Your task to perform on an android device: What's on the menu at Five Guys? Image 0: 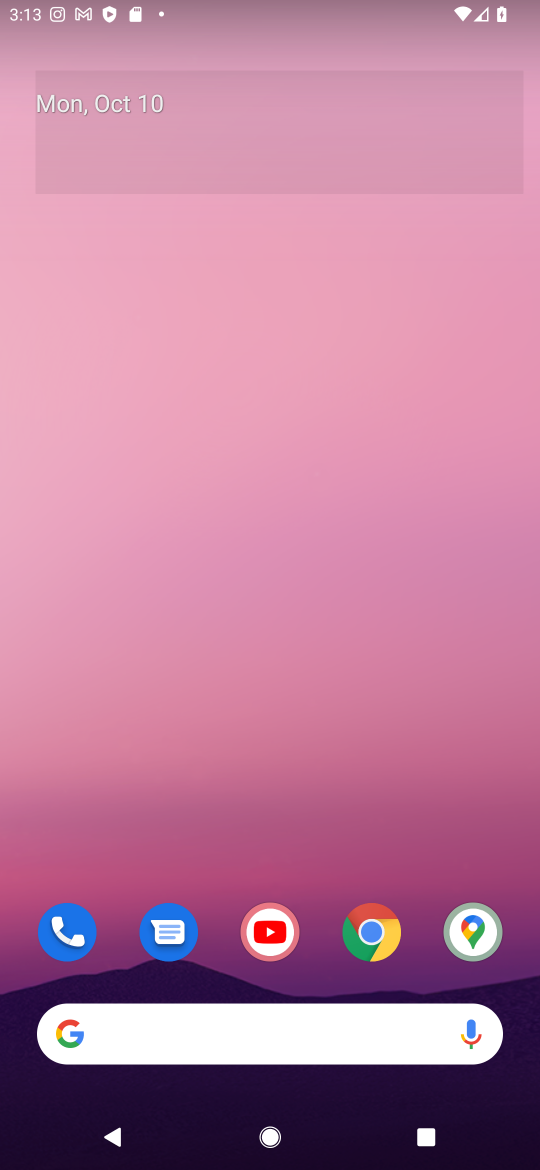
Step 0: click (356, 1042)
Your task to perform on an android device: What's on the menu at Five Guys? Image 1: 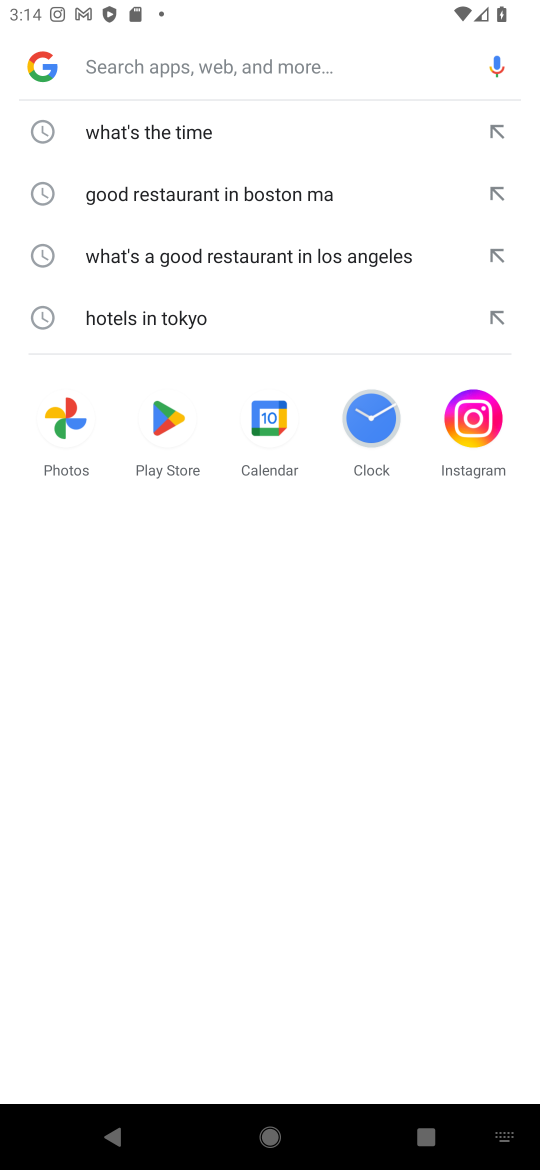
Step 1: type "What's on the menu at Five Guys"
Your task to perform on an android device: What's on the menu at Five Guys? Image 2: 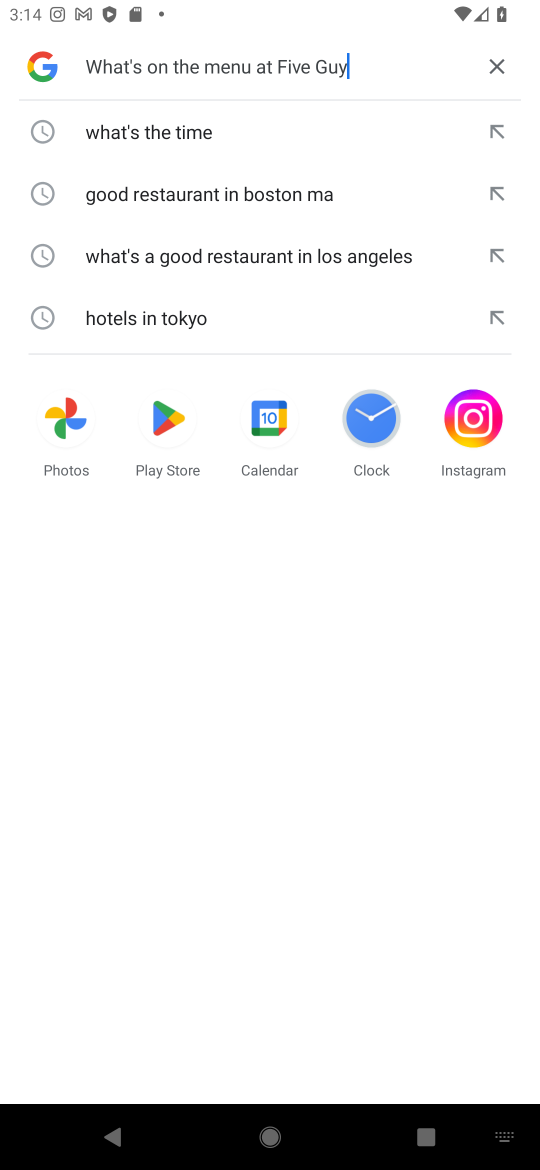
Step 2: press enter
Your task to perform on an android device: What's on the menu at Five Guys? Image 3: 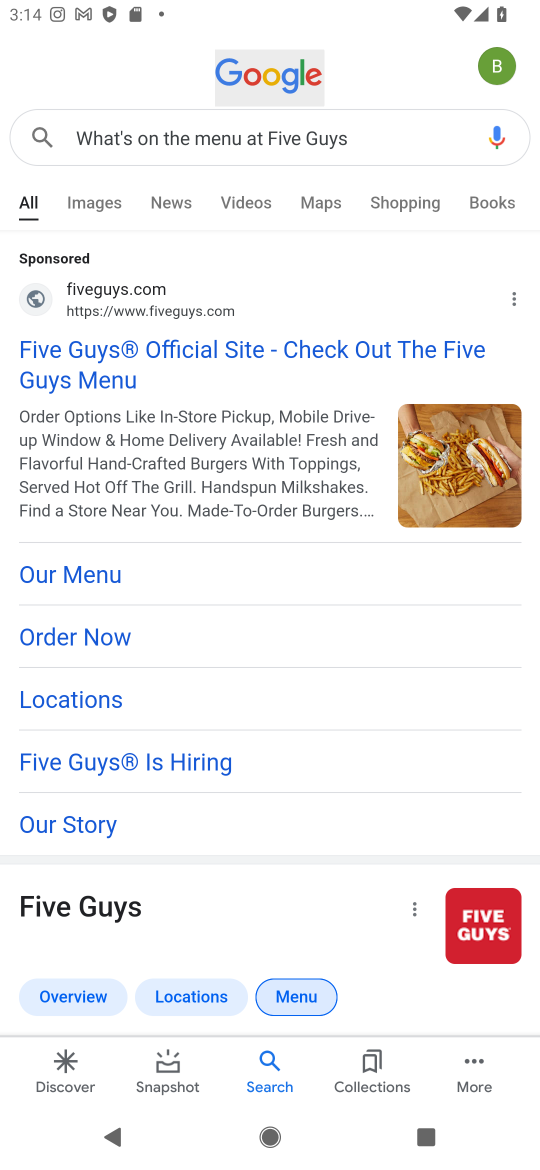
Step 3: click (330, 344)
Your task to perform on an android device: What's on the menu at Five Guys? Image 4: 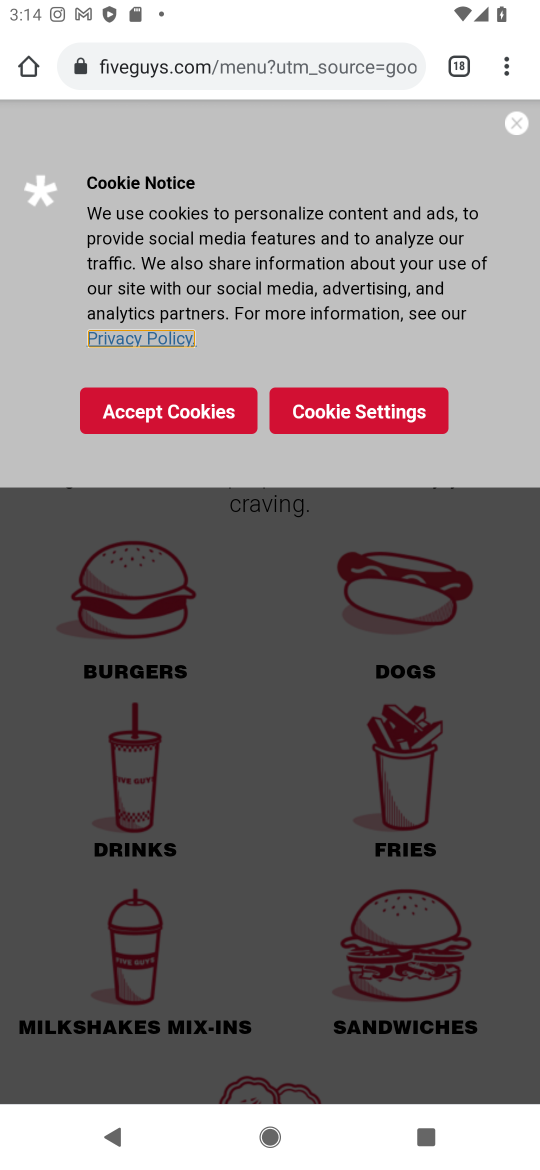
Step 4: click (178, 414)
Your task to perform on an android device: What's on the menu at Five Guys? Image 5: 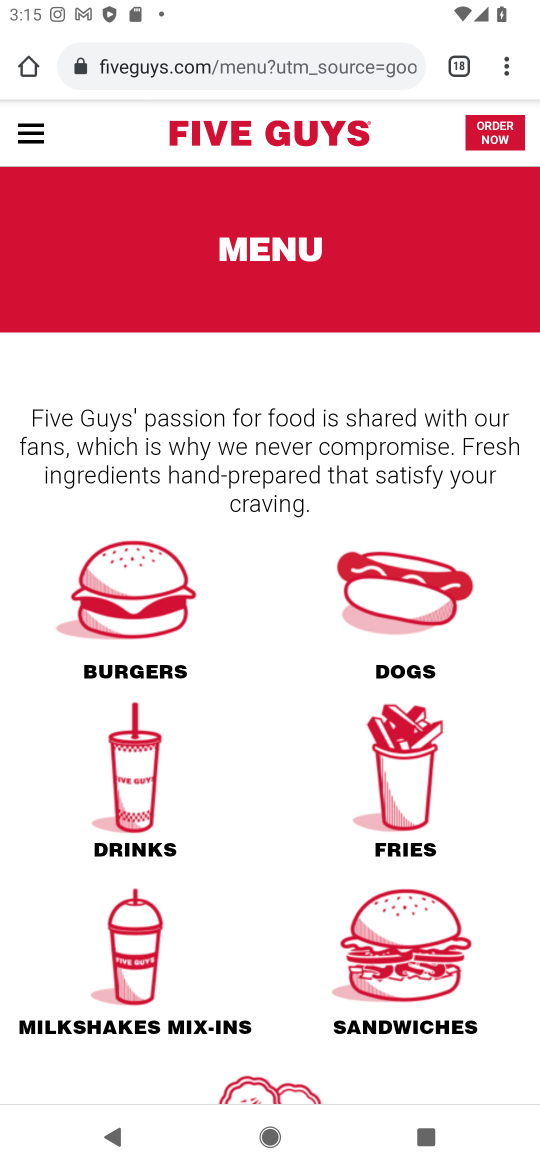
Step 5: task complete